Your task to perform on an android device: turn on priority inbox in the gmail app Image 0: 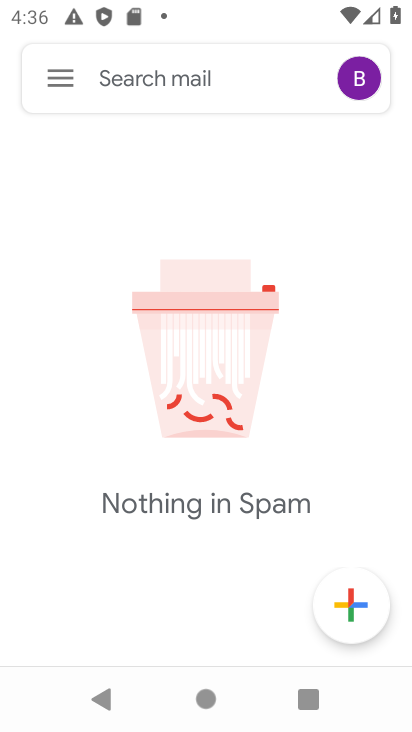
Step 0: drag from (217, 535) to (257, 343)
Your task to perform on an android device: turn on priority inbox in the gmail app Image 1: 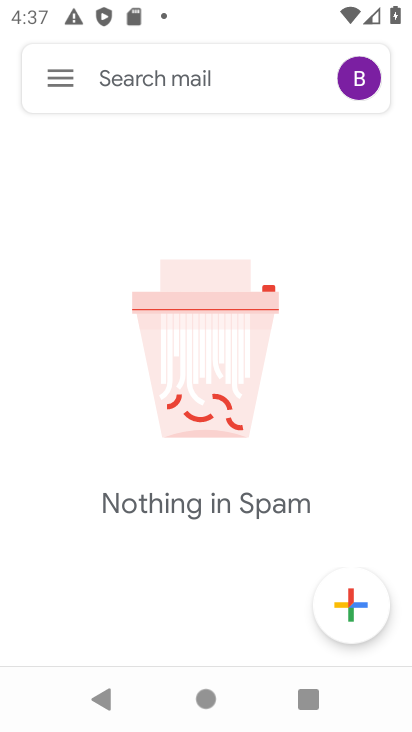
Step 1: task complete